Your task to perform on an android device: toggle data saver in the chrome app Image 0: 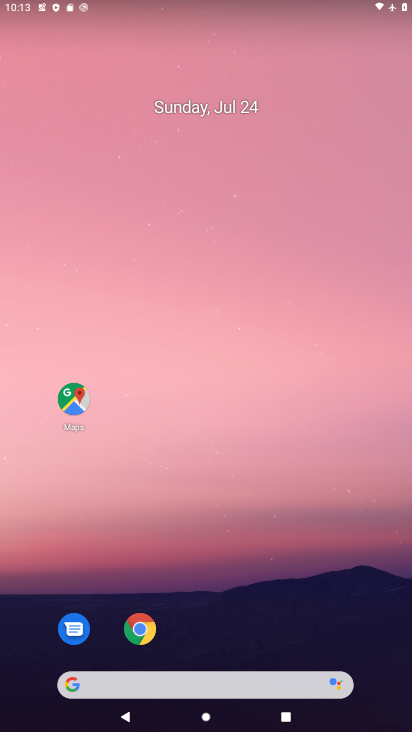
Step 0: click (135, 633)
Your task to perform on an android device: toggle data saver in the chrome app Image 1: 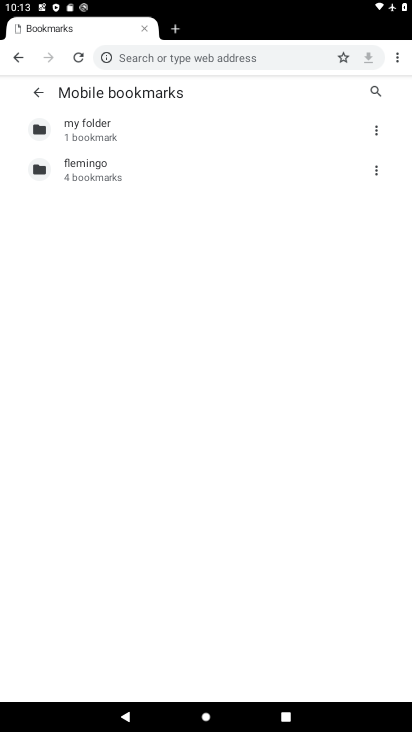
Step 1: click (393, 51)
Your task to perform on an android device: toggle data saver in the chrome app Image 2: 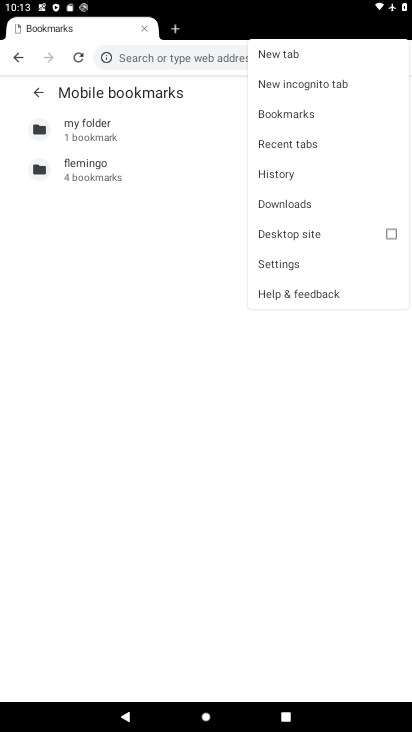
Step 2: click (290, 256)
Your task to perform on an android device: toggle data saver in the chrome app Image 3: 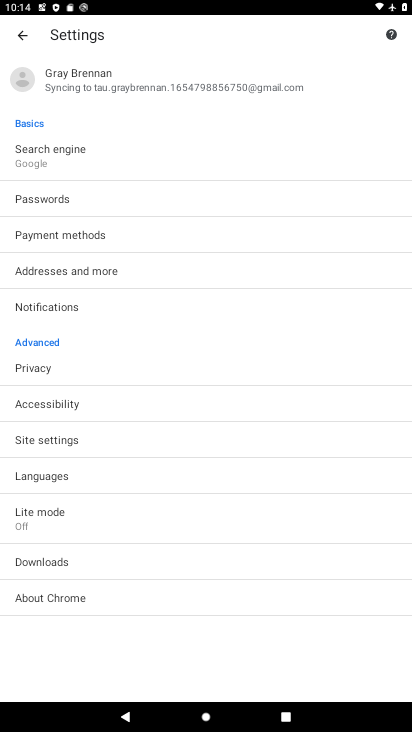
Step 3: task complete